Your task to perform on an android device: Go to calendar. Show me events next week Image 0: 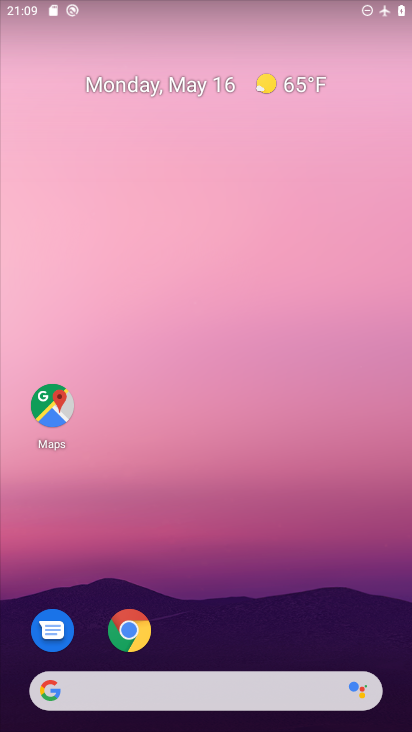
Step 0: drag from (210, 616) to (216, 216)
Your task to perform on an android device: Go to calendar. Show me events next week Image 1: 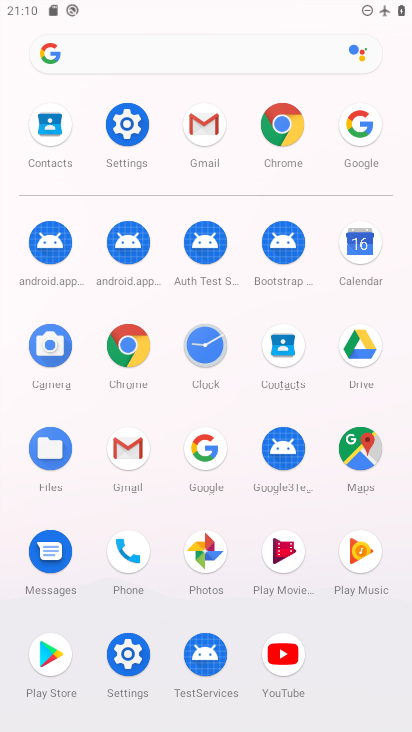
Step 1: click (346, 233)
Your task to perform on an android device: Go to calendar. Show me events next week Image 2: 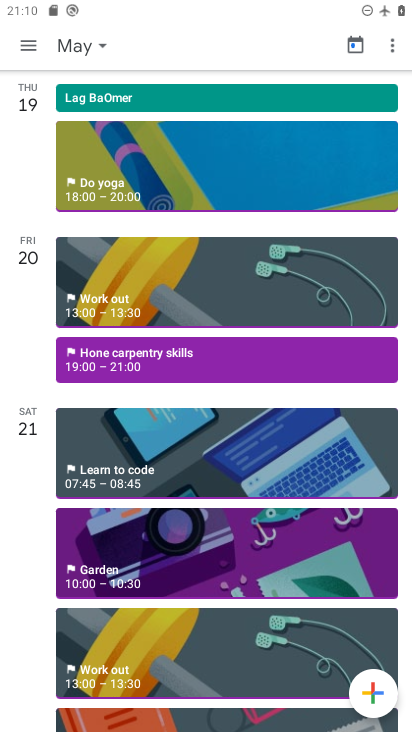
Step 2: click (96, 52)
Your task to perform on an android device: Go to calendar. Show me events next week Image 3: 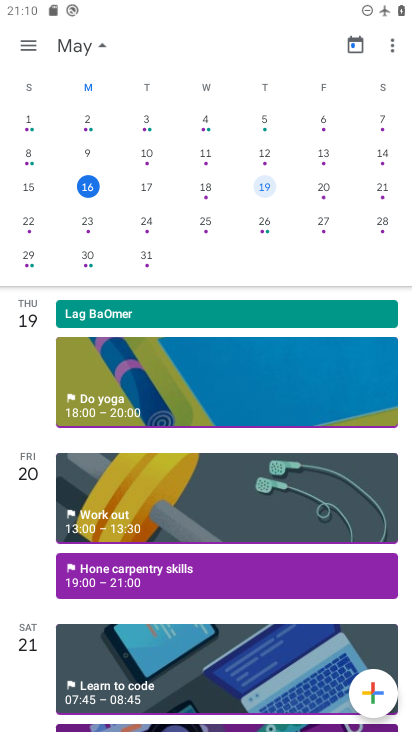
Step 3: click (82, 219)
Your task to perform on an android device: Go to calendar. Show me events next week Image 4: 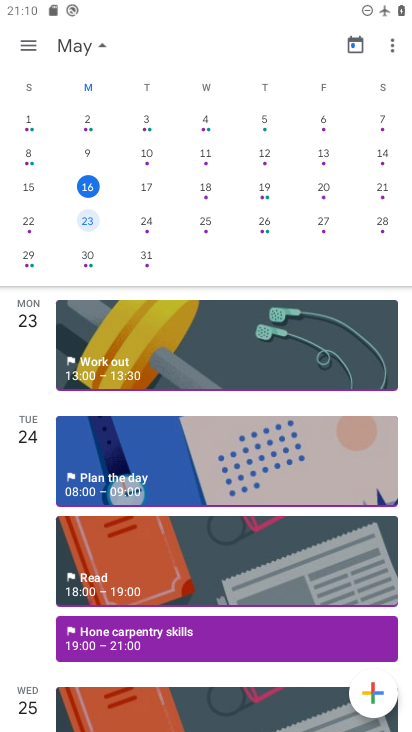
Step 4: task complete